Your task to perform on an android device: toggle show notifications on the lock screen Image 0: 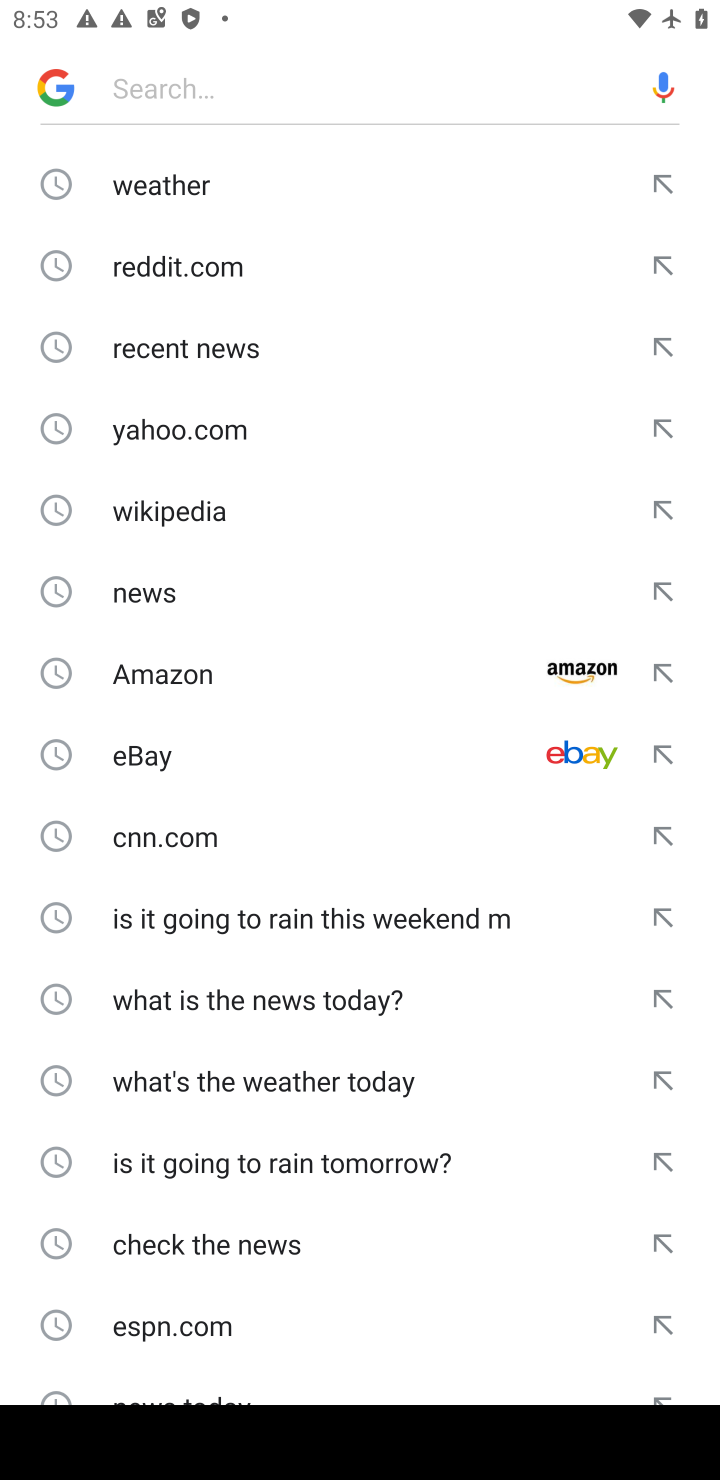
Step 0: press home button
Your task to perform on an android device: toggle show notifications on the lock screen Image 1: 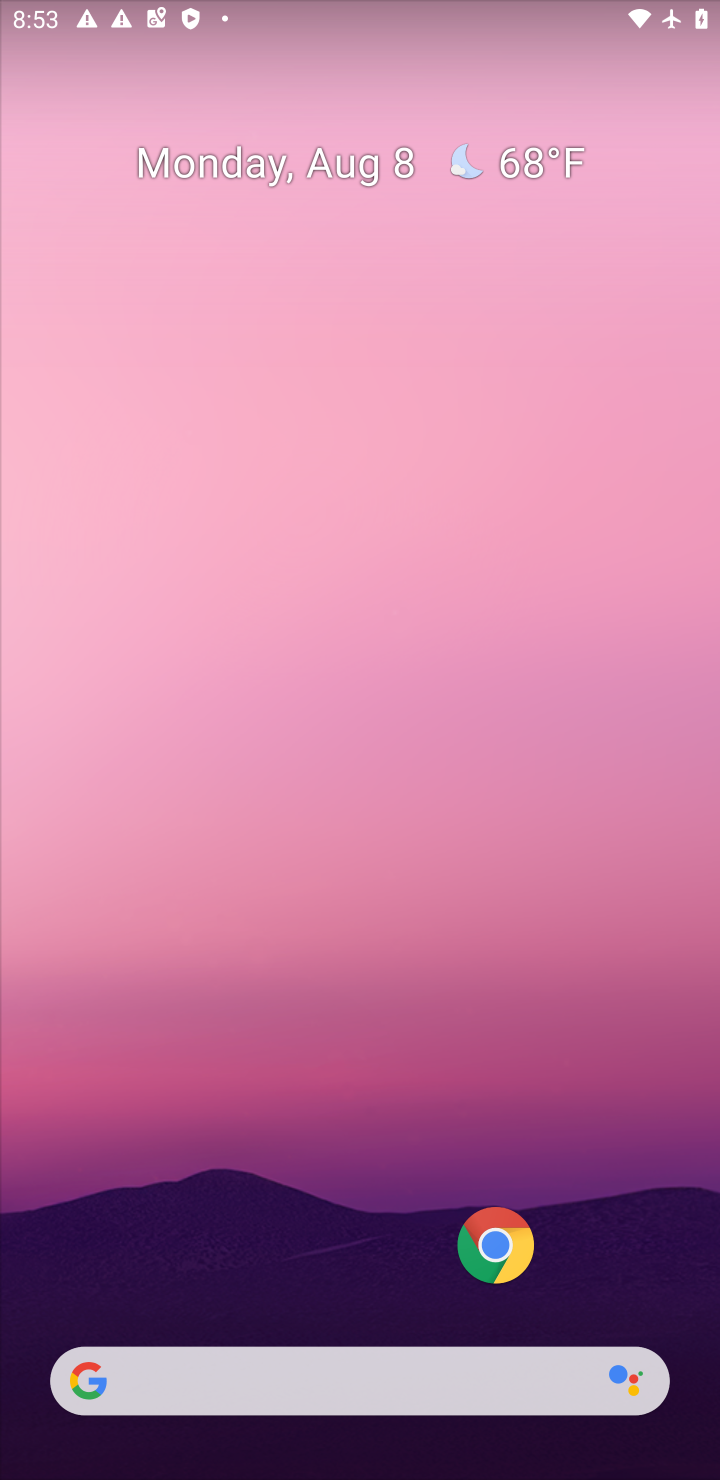
Step 1: drag from (323, 247) to (416, 1)
Your task to perform on an android device: toggle show notifications on the lock screen Image 2: 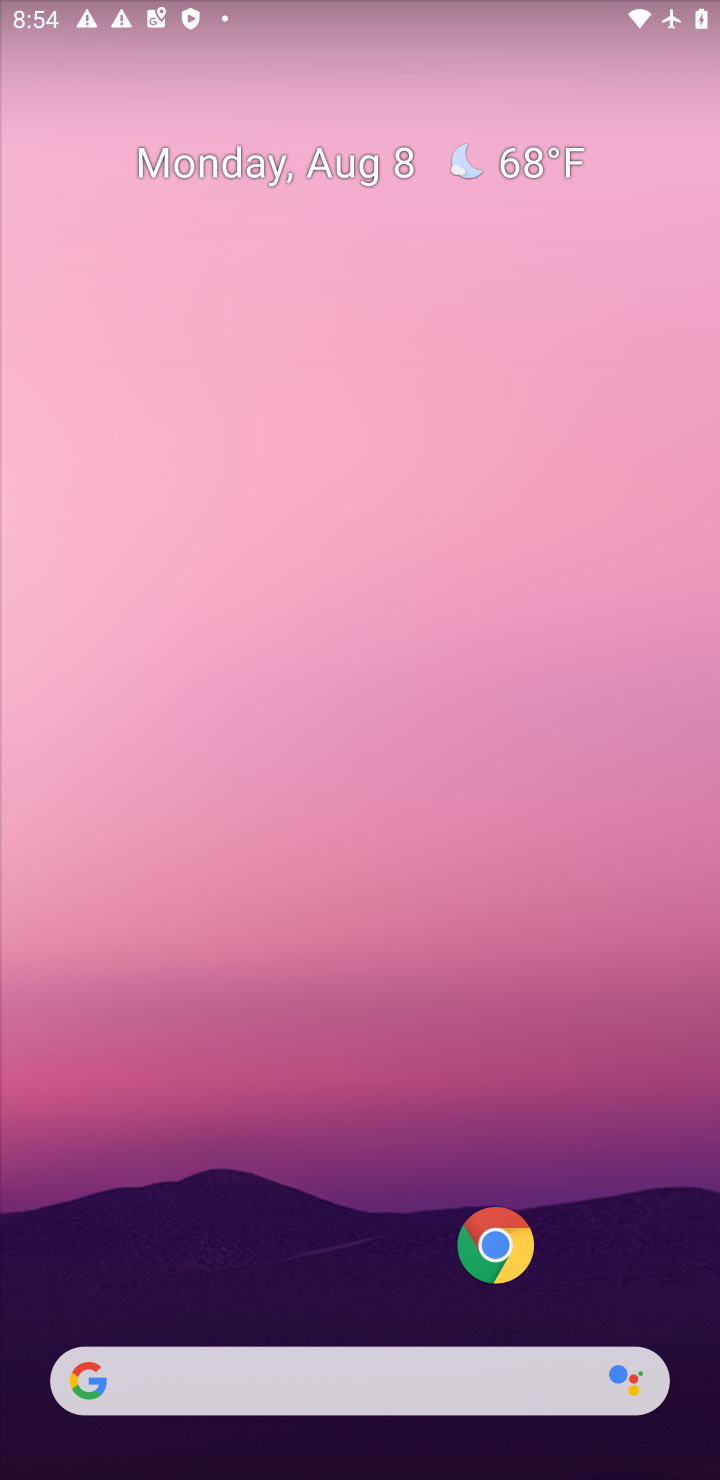
Step 2: drag from (300, 885) to (355, 17)
Your task to perform on an android device: toggle show notifications on the lock screen Image 3: 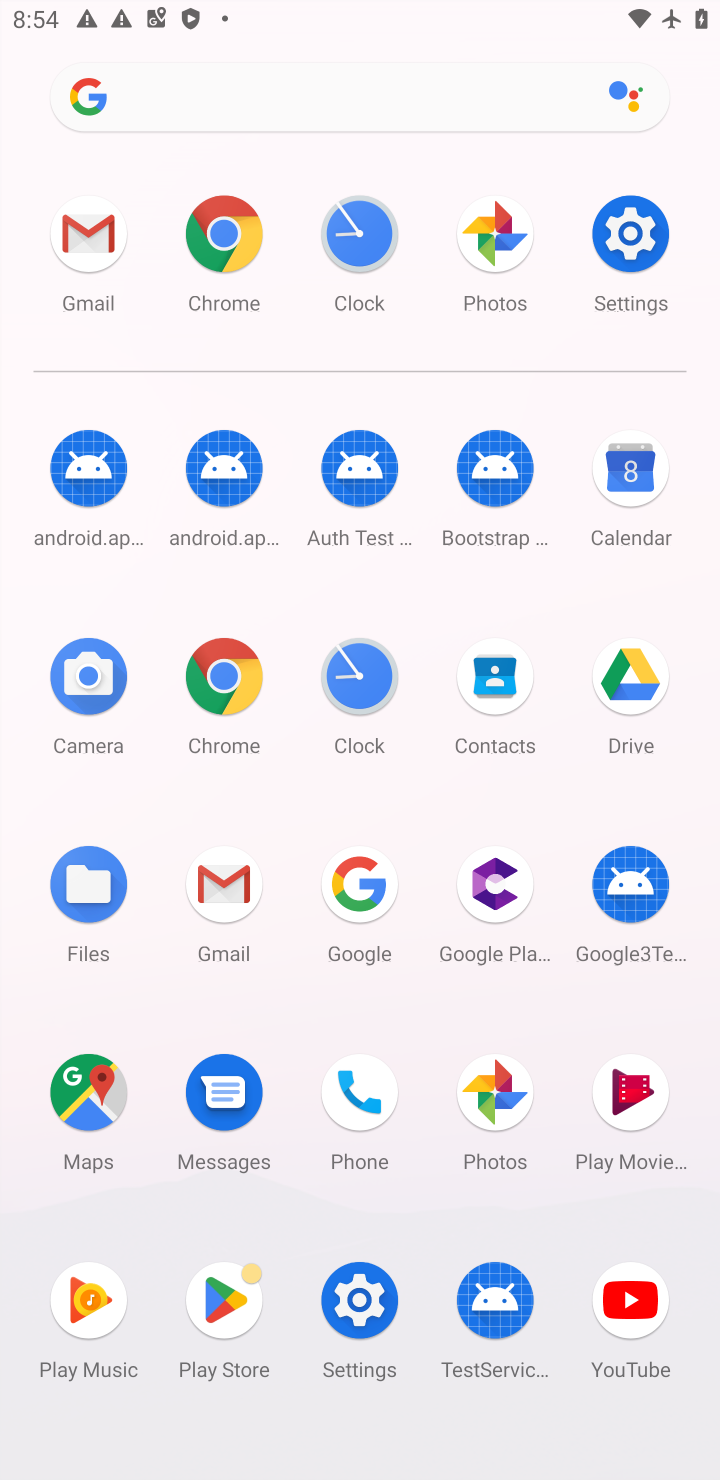
Step 3: click (626, 270)
Your task to perform on an android device: toggle show notifications on the lock screen Image 4: 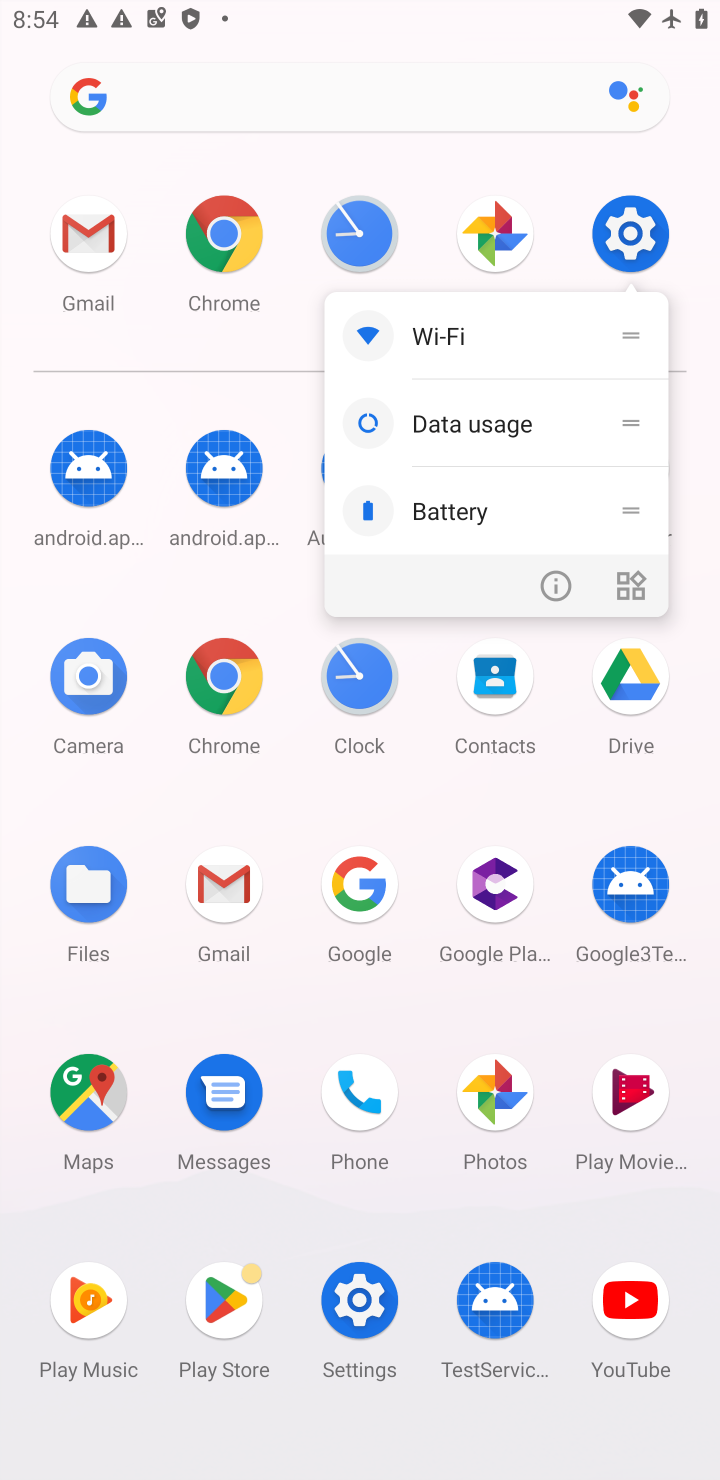
Step 4: click (617, 212)
Your task to perform on an android device: toggle show notifications on the lock screen Image 5: 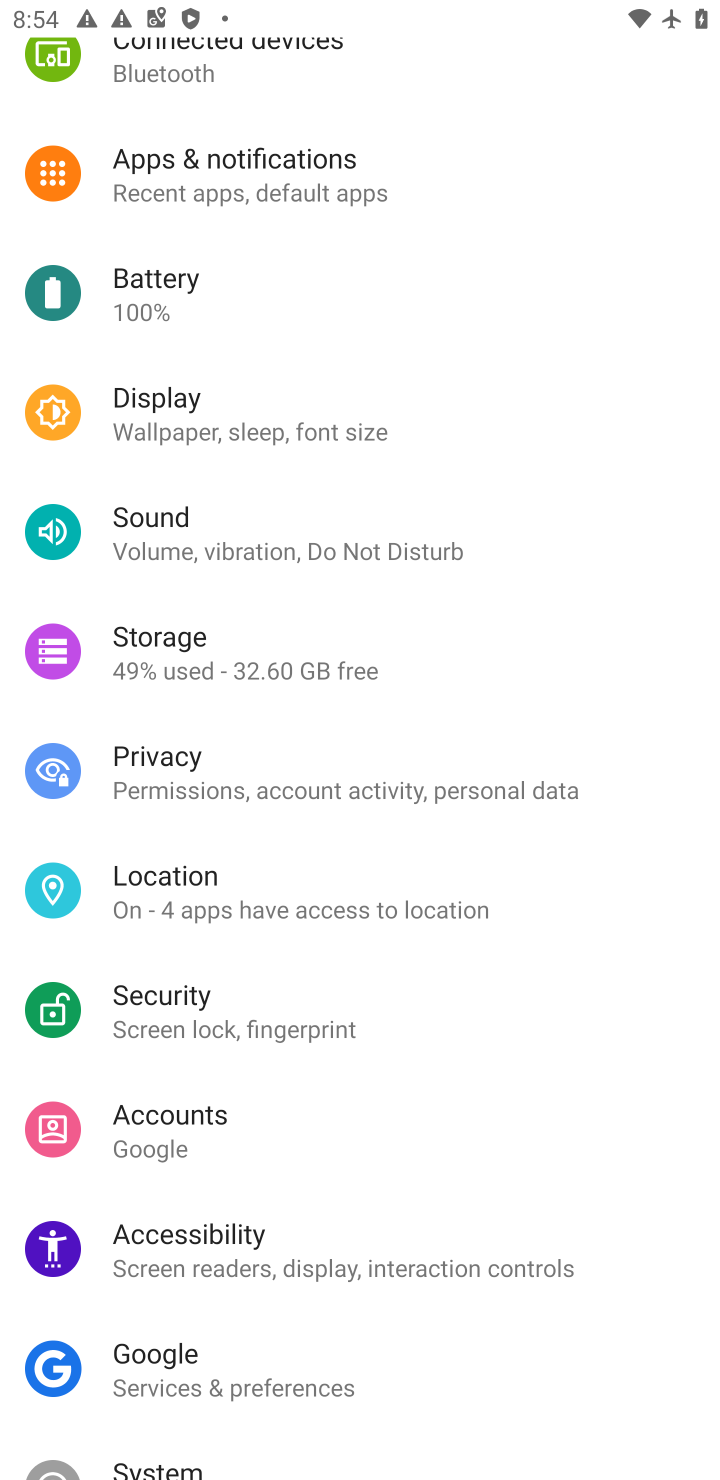
Step 5: click (289, 189)
Your task to perform on an android device: toggle show notifications on the lock screen Image 6: 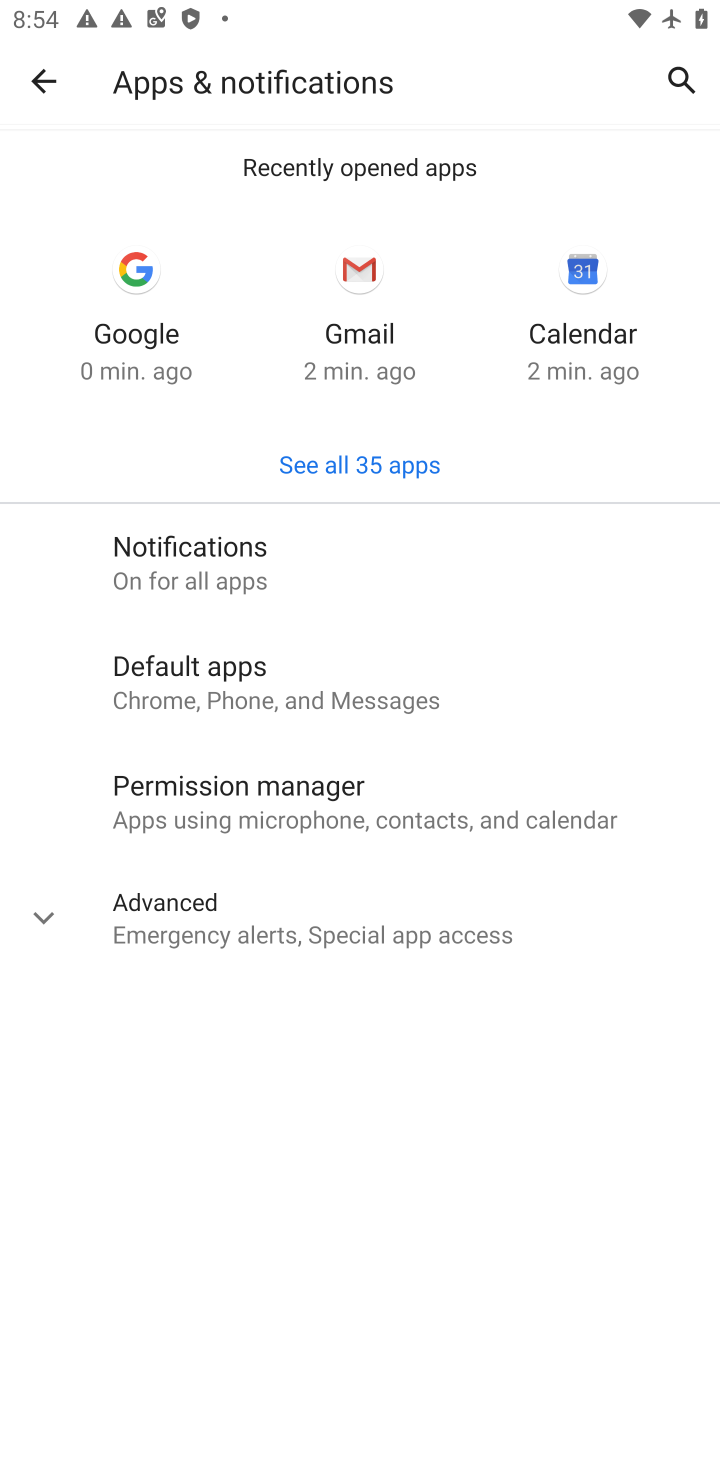
Step 6: click (200, 572)
Your task to perform on an android device: toggle show notifications on the lock screen Image 7: 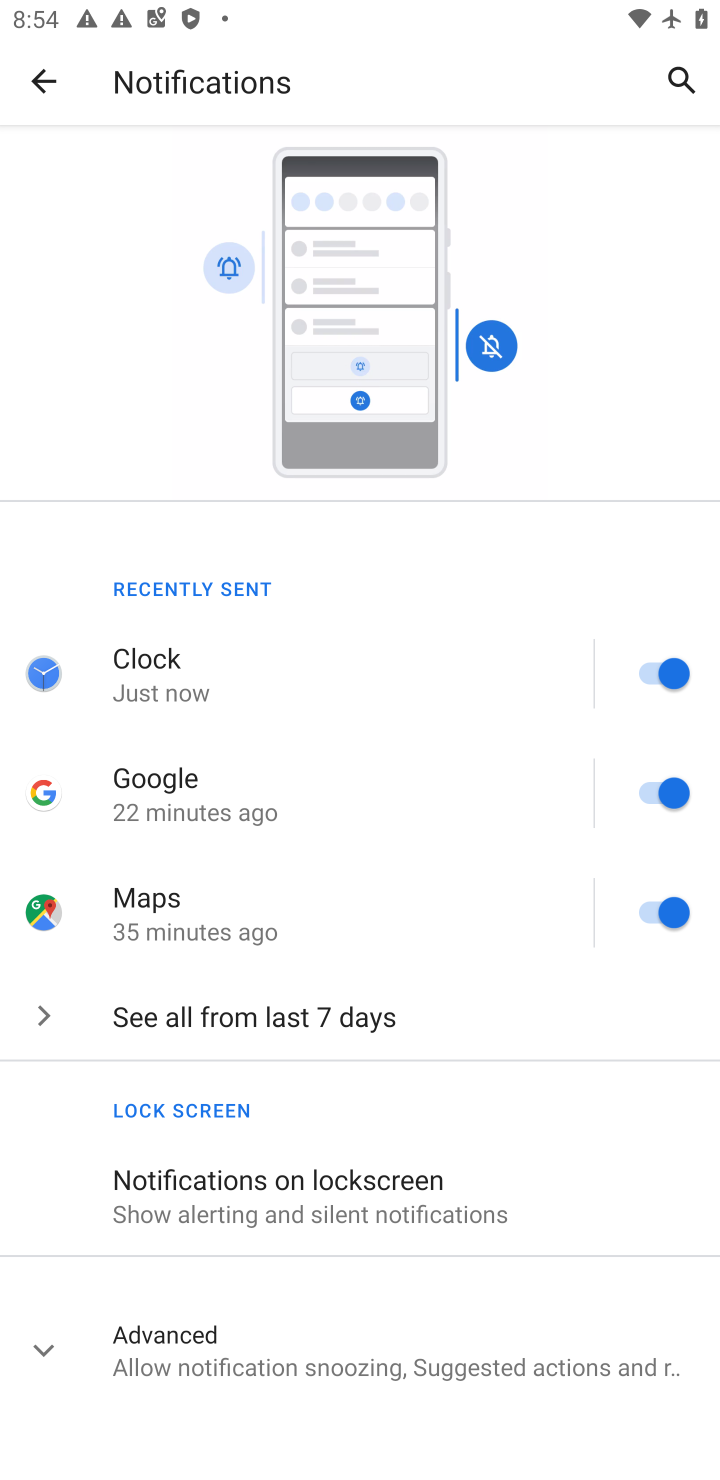
Step 7: click (191, 1353)
Your task to perform on an android device: toggle show notifications on the lock screen Image 8: 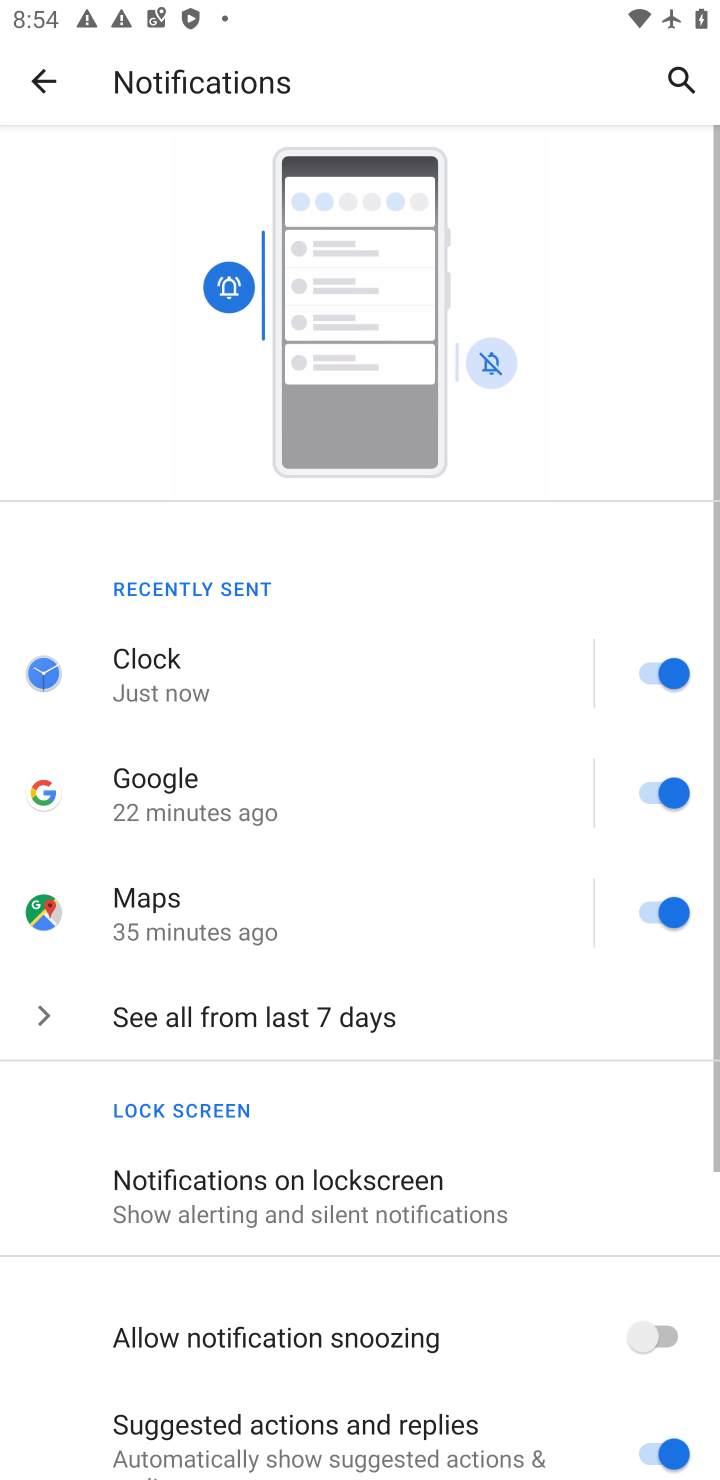
Step 8: drag from (248, 1300) to (376, 350)
Your task to perform on an android device: toggle show notifications on the lock screen Image 9: 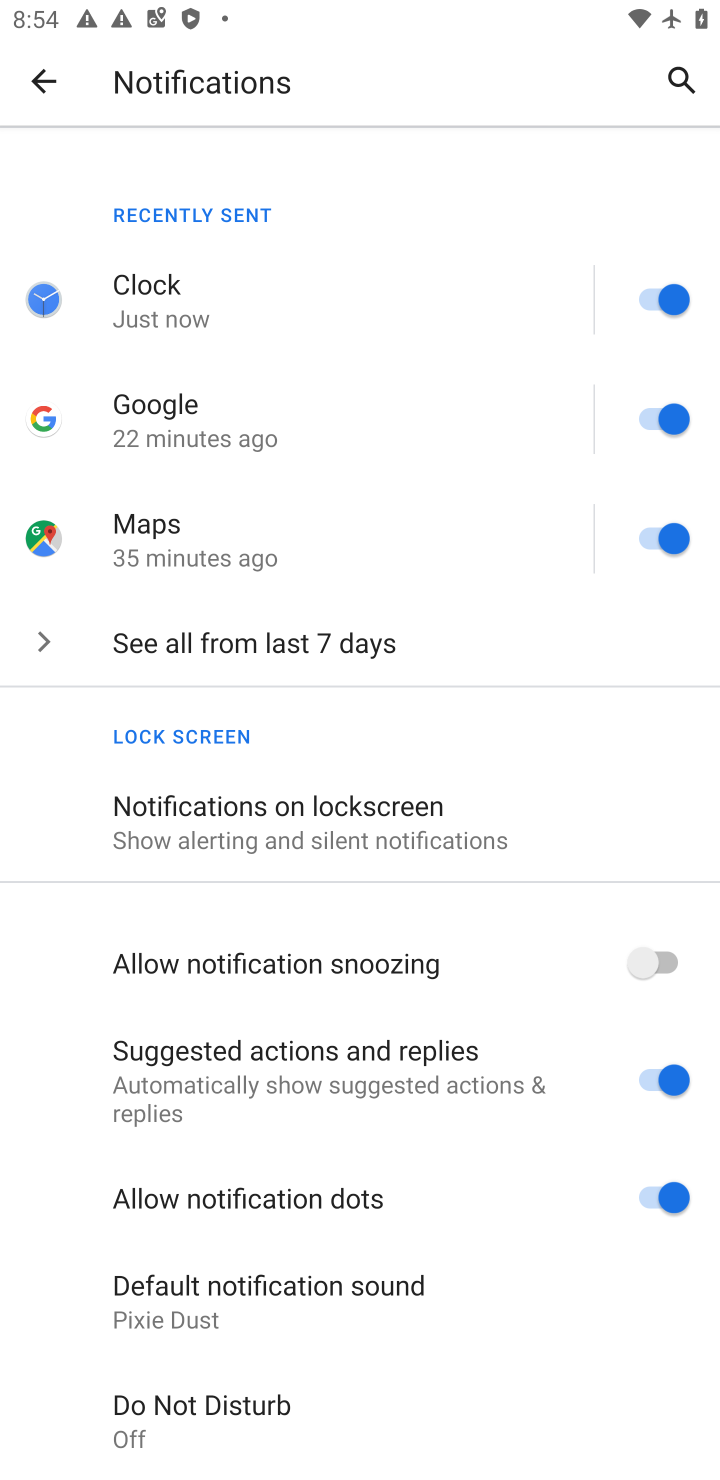
Step 9: click (301, 825)
Your task to perform on an android device: toggle show notifications on the lock screen Image 10: 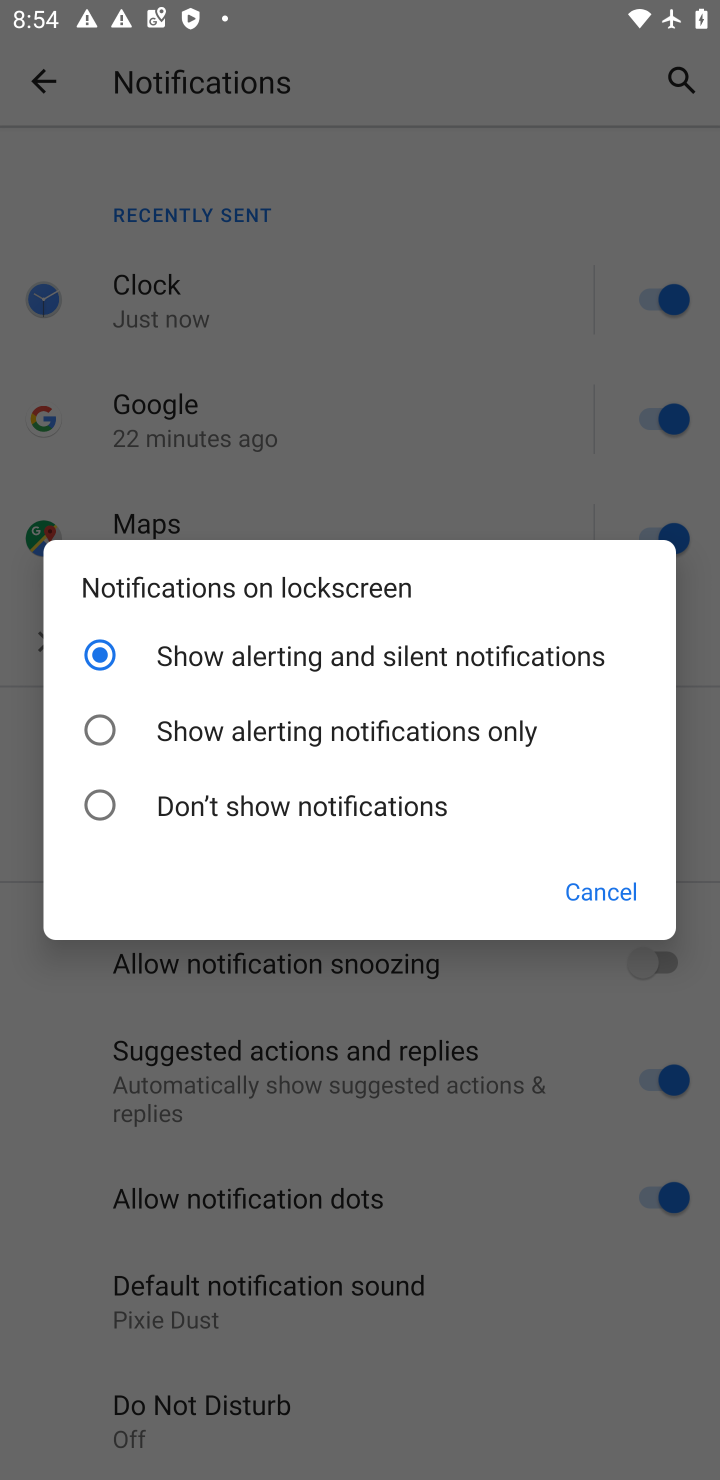
Step 10: click (238, 821)
Your task to perform on an android device: toggle show notifications on the lock screen Image 11: 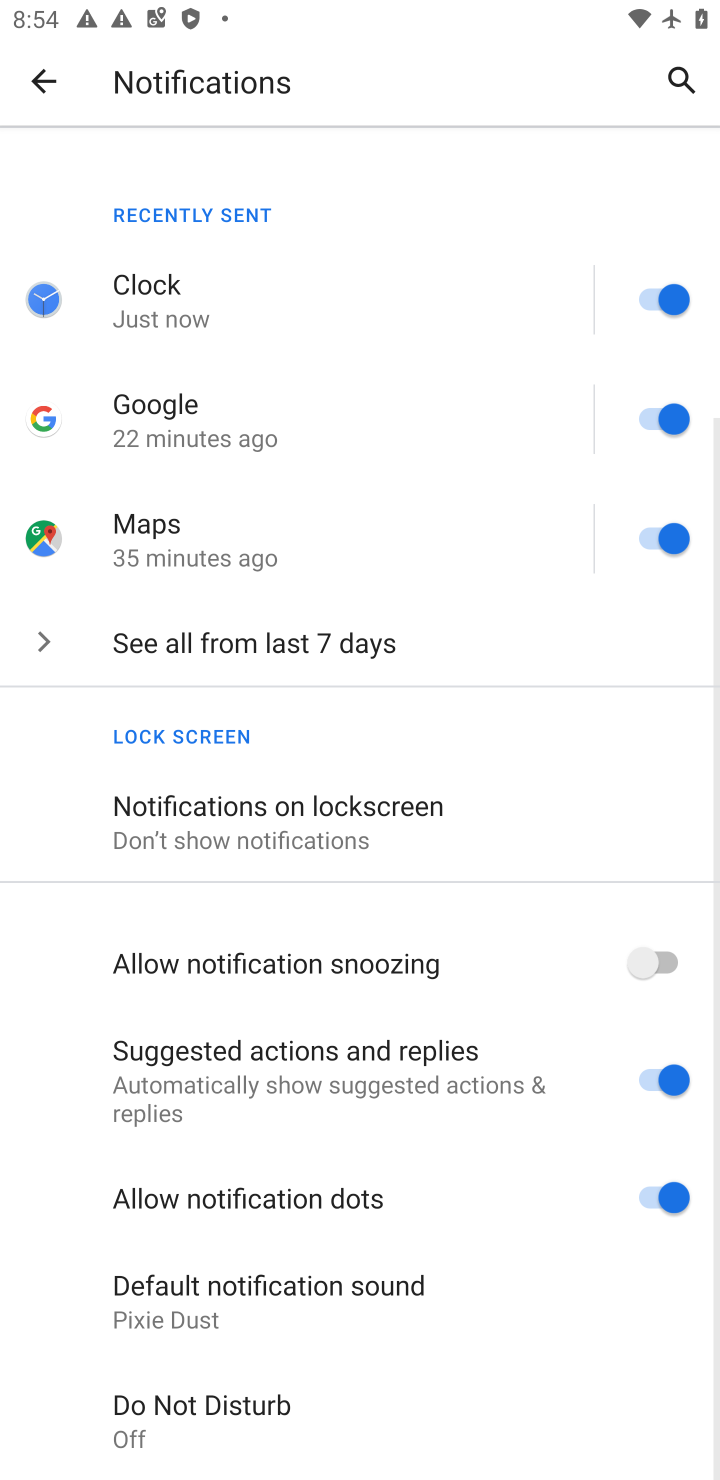
Step 11: task complete